Your task to perform on an android device: turn on notifications settings in the gmail app Image 0: 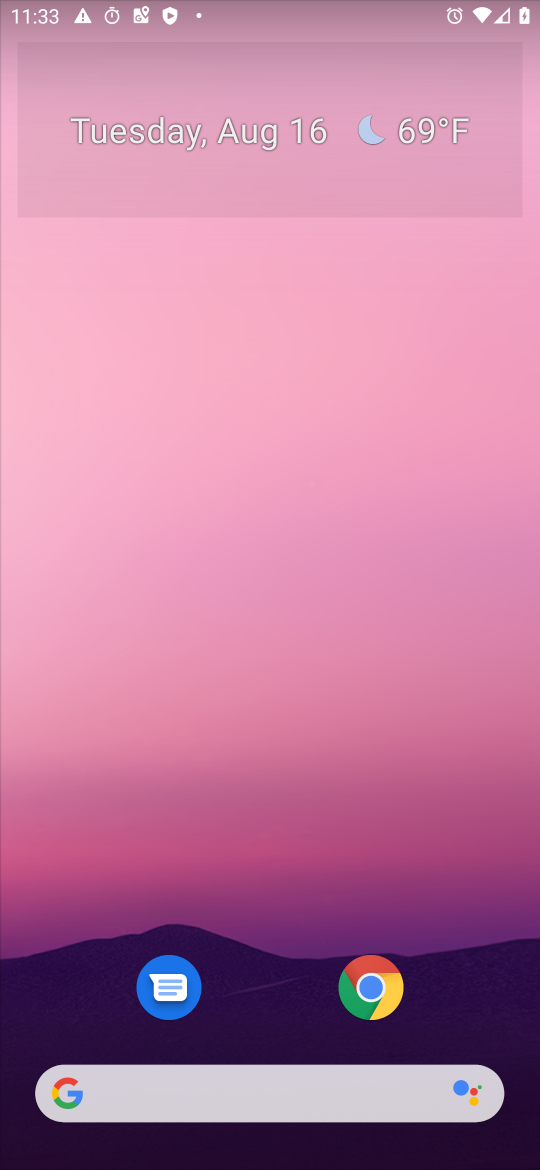
Step 0: drag from (6, 1094) to (359, 495)
Your task to perform on an android device: turn on notifications settings in the gmail app Image 1: 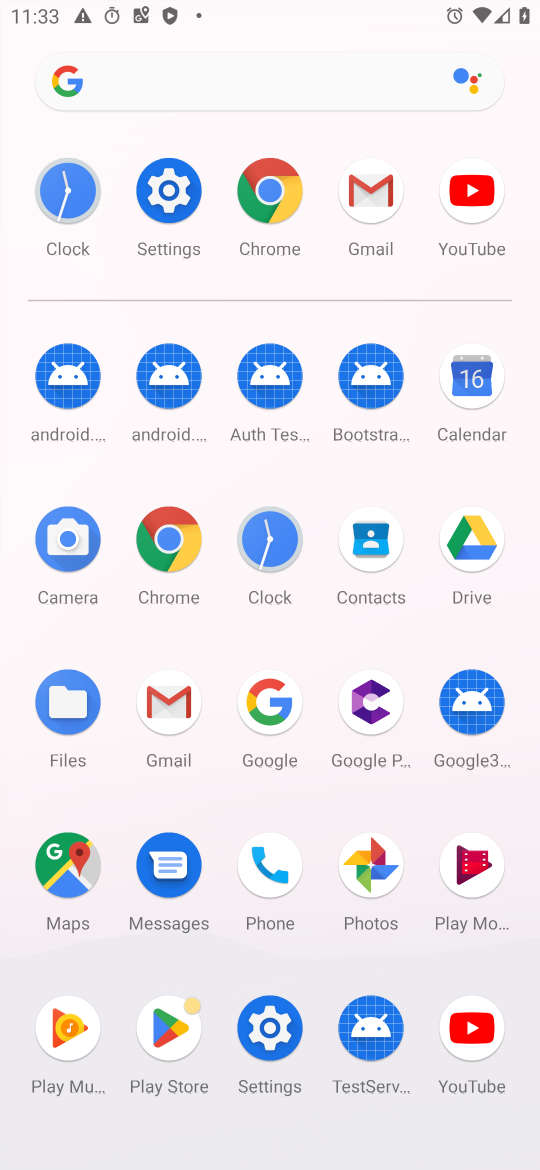
Step 1: click (171, 698)
Your task to perform on an android device: turn on notifications settings in the gmail app Image 2: 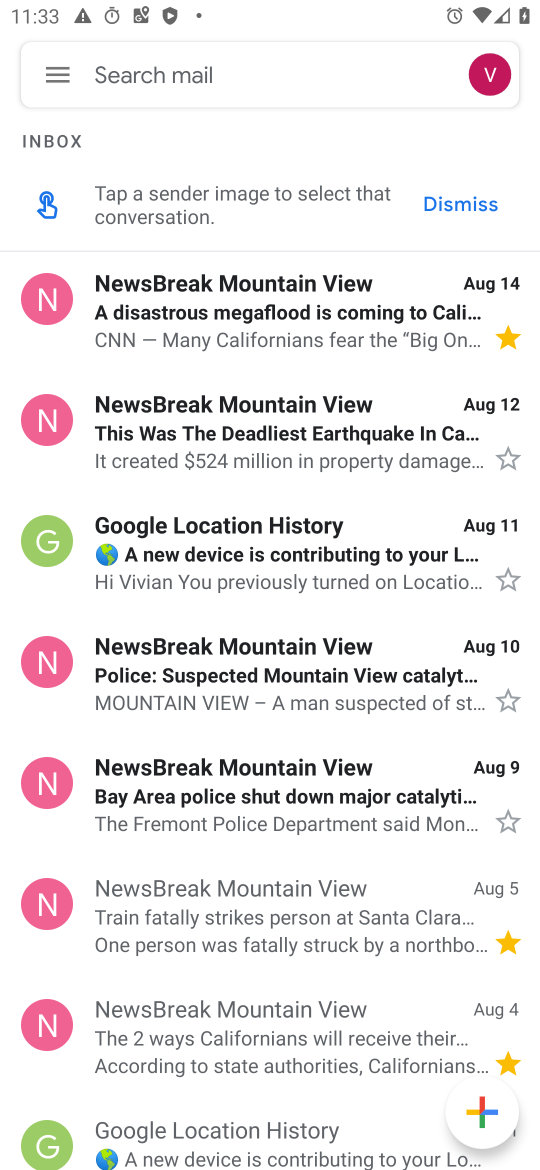
Step 2: click (51, 76)
Your task to perform on an android device: turn on notifications settings in the gmail app Image 3: 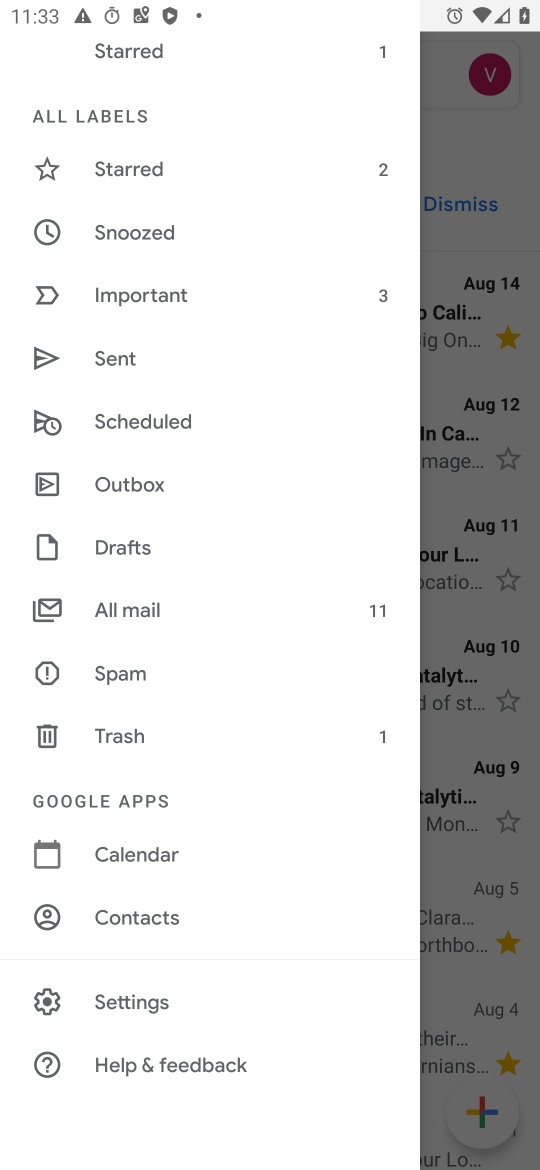
Step 3: click (119, 995)
Your task to perform on an android device: turn on notifications settings in the gmail app Image 4: 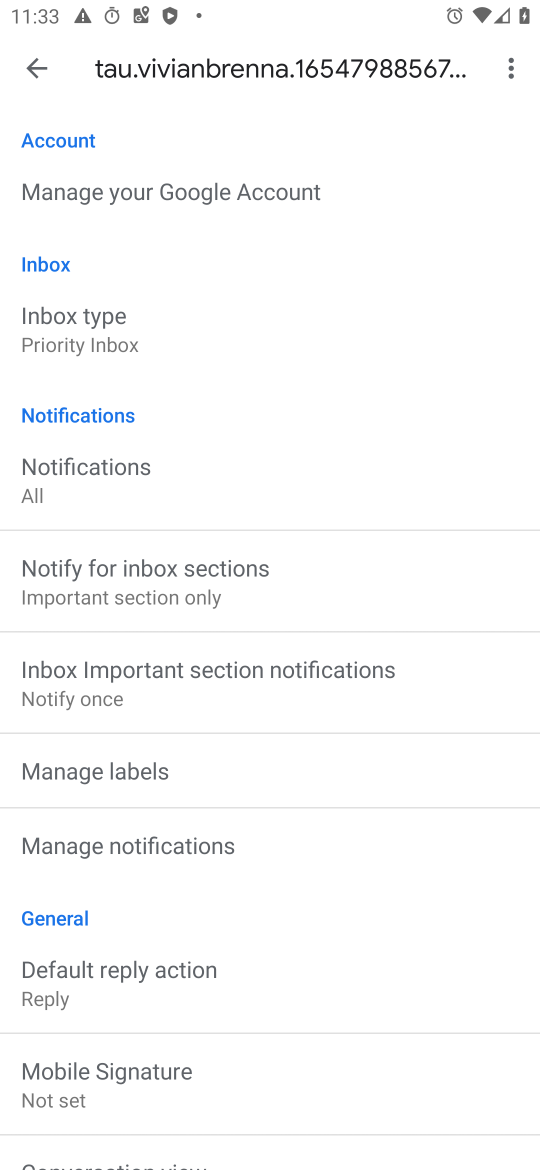
Step 4: click (121, 856)
Your task to perform on an android device: turn on notifications settings in the gmail app Image 5: 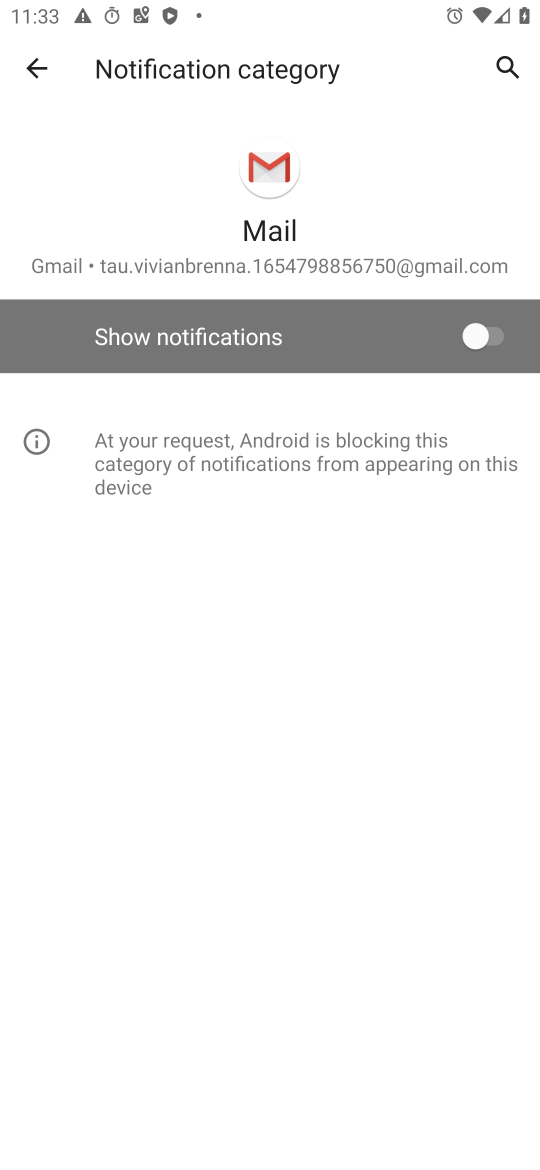
Step 5: click (477, 346)
Your task to perform on an android device: turn on notifications settings in the gmail app Image 6: 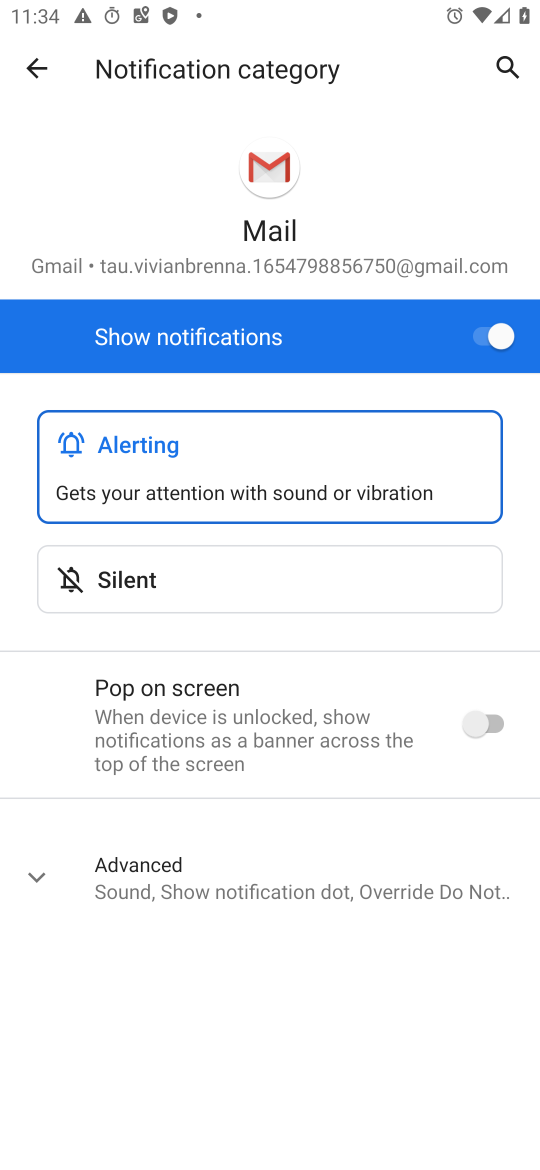
Step 6: task complete